Your task to perform on an android device: Open Youtube and go to the subscriptions tab Image 0: 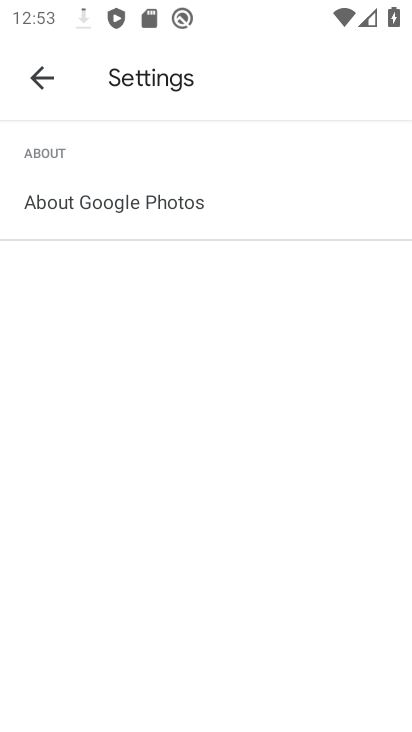
Step 0: press home button
Your task to perform on an android device: Open Youtube and go to the subscriptions tab Image 1: 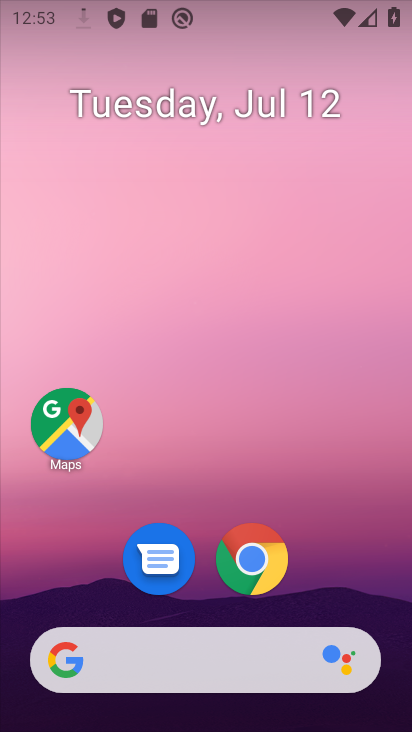
Step 1: drag from (351, 584) to (372, 132)
Your task to perform on an android device: Open Youtube and go to the subscriptions tab Image 2: 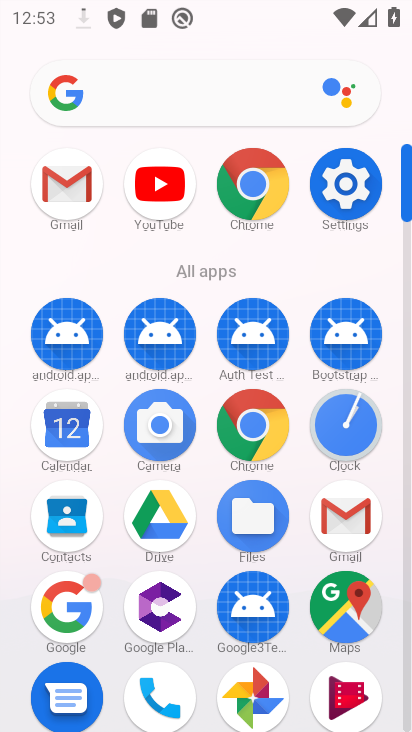
Step 2: click (168, 197)
Your task to perform on an android device: Open Youtube and go to the subscriptions tab Image 3: 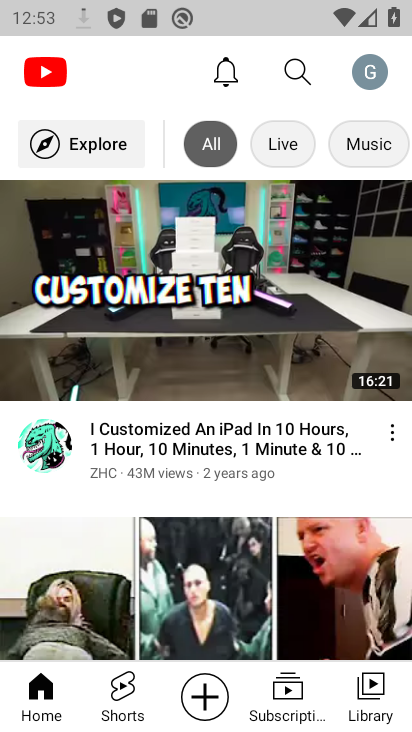
Step 3: click (293, 692)
Your task to perform on an android device: Open Youtube and go to the subscriptions tab Image 4: 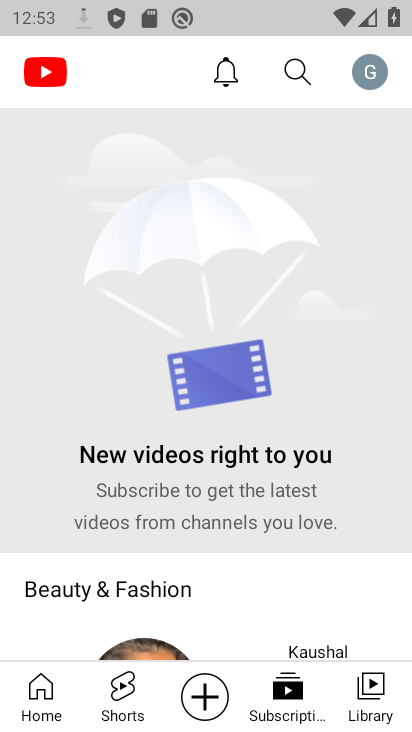
Step 4: task complete